Your task to perform on an android device: Open Reddit.com Image 0: 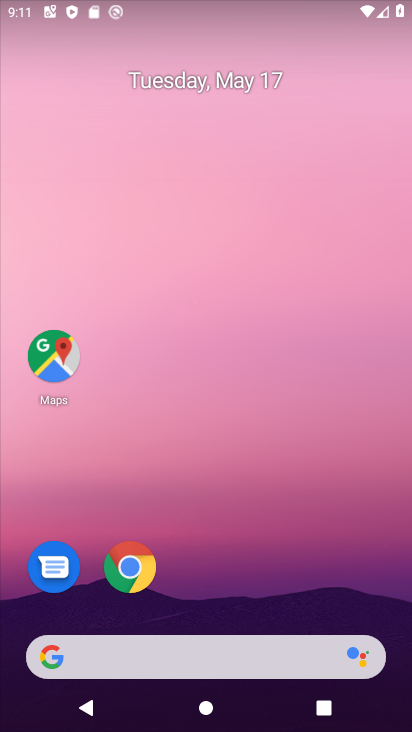
Step 0: click (180, 655)
Your task to perform on an android device: Open Reddit.com Image 1: 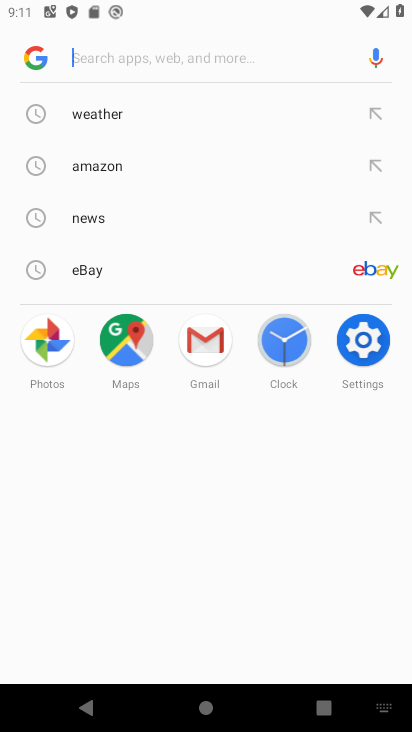
Step 1: type "Reddit.com"
Your task to perform on an android device: Open Reddit.com Image 2: 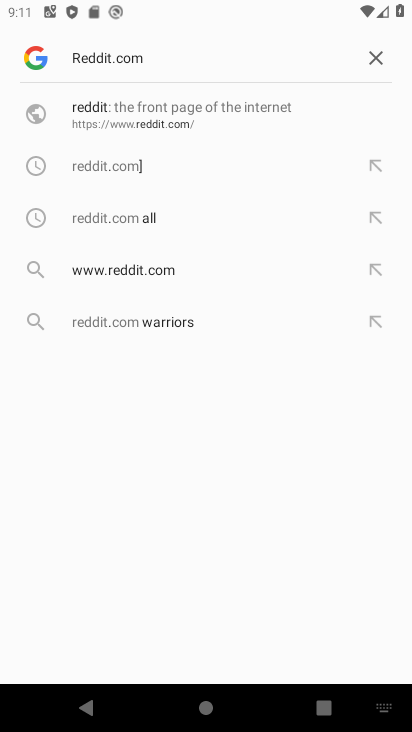
Step 2: click (164, 121)
Your task to perform on an android device: Open Reddit.com Image 3: 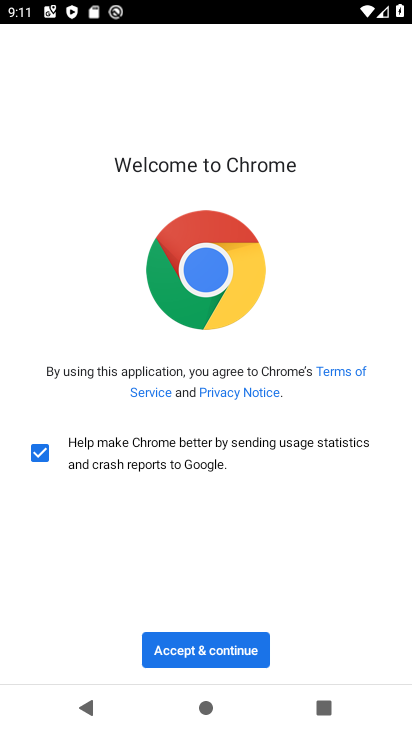
Step 3: click (215, 637)
Your task to perform on an android device: Open Reddit.com Image 4: 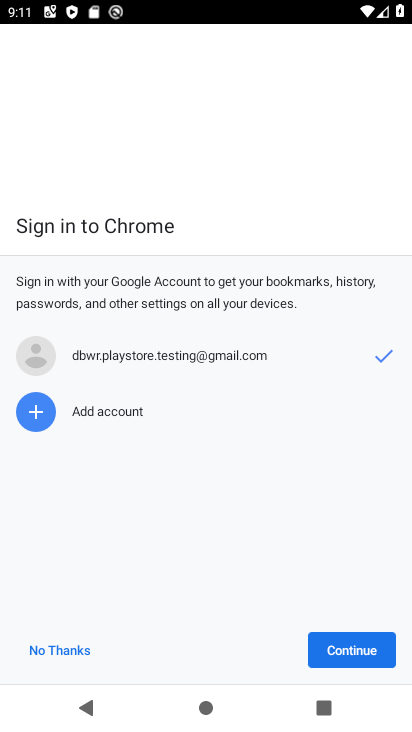
Step 4: click (355, 650)
Your task to perform on an android device: Open Reddit.com Image 5: 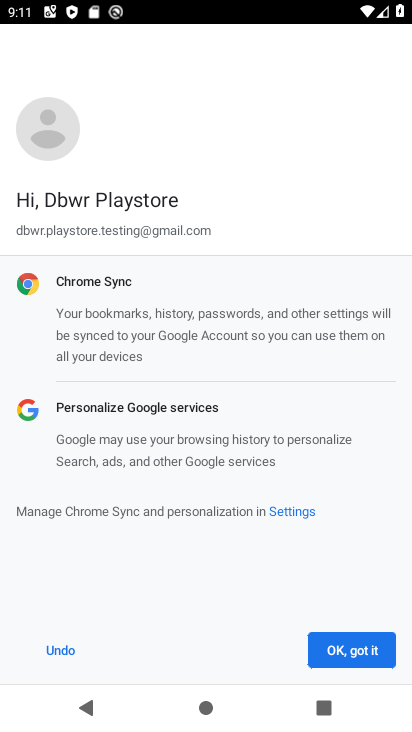
Step 5: click (355, 650)
Your task to perform on an android device: Open Reddit.com Image 6: 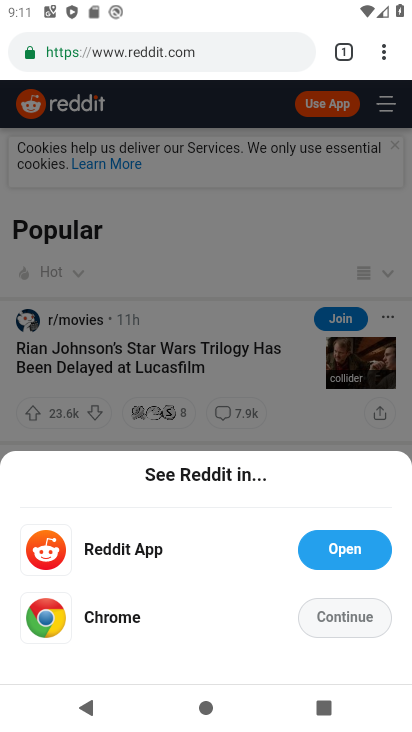
Step 6: click (356, 617)
Your task to perform on an android device: Open Reddit.com Image 7: 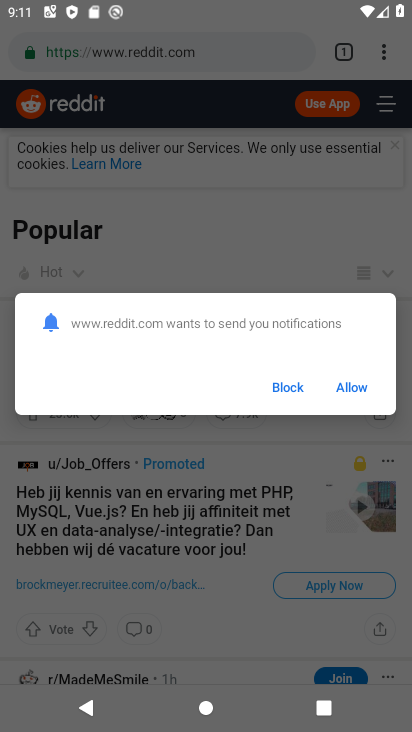
Step 7: click (366, 388)
Your task to perform on an android device: Open Reddit.com Image 8: 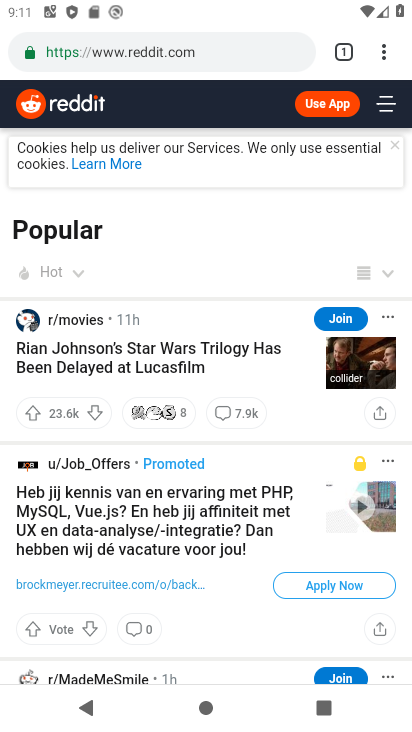
Step 8: task complete